Your task to perform on an android device: Open Reddit.com Image 0: 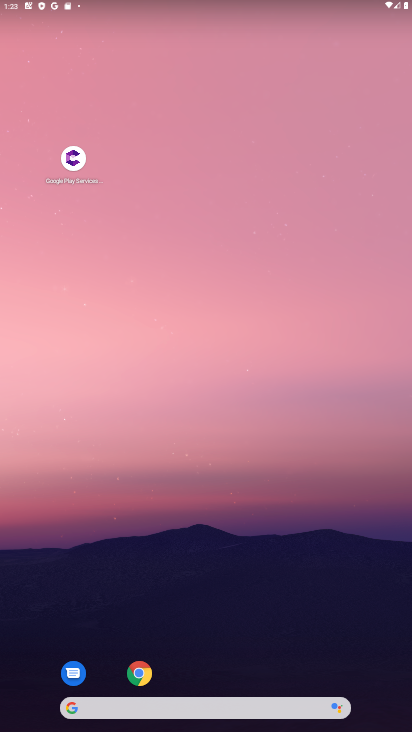
Step 0: drag from (265, 652) to (174, 296)
Your task to perform on an android device: Open Reddit.com Image 1: 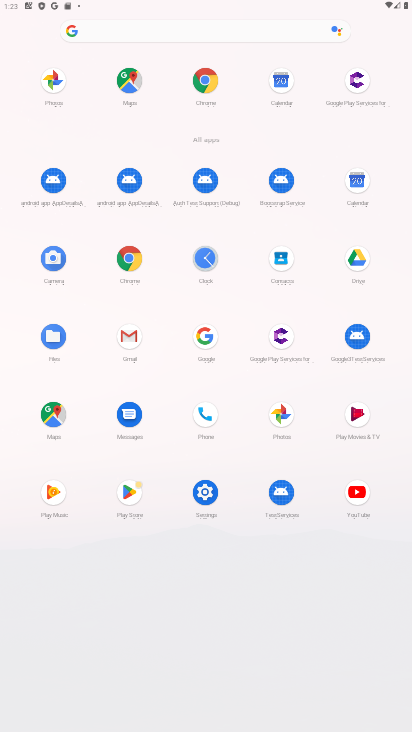
Step 1: click (203, 85)
Your task to perform on an android device: Open Reddit.com Image 2: 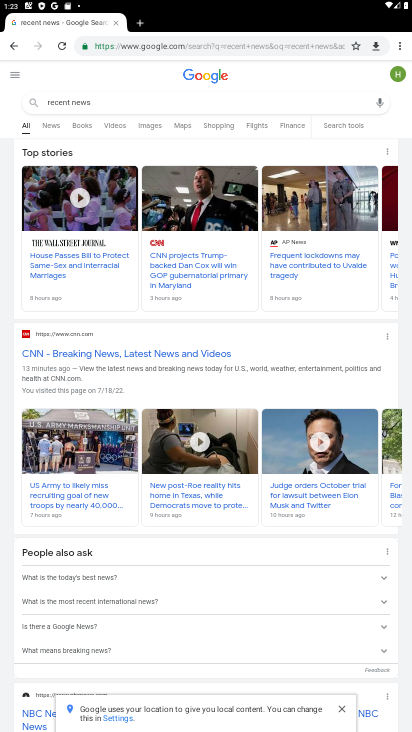
Step 2: click (201, 96)
Your task to perform on an android device: Open Reddit.com Image 3: 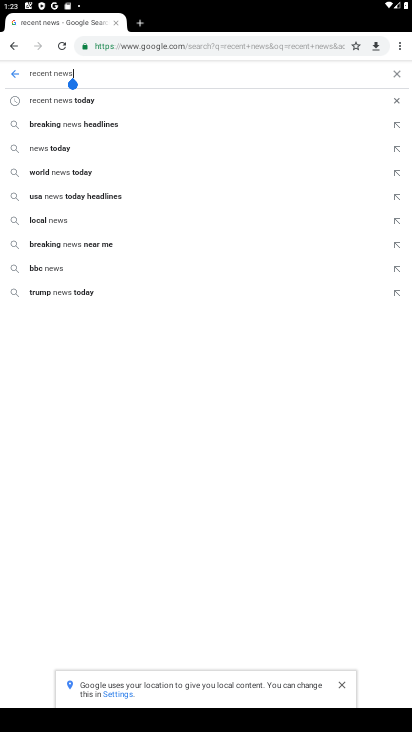
Step 3: click (398, 73)
Your task to perform on an android device: Open Reddit.com Image 4: 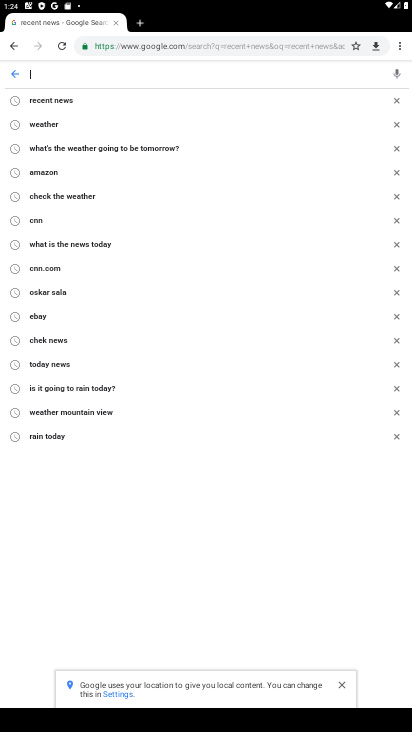
Step 4: type "Reddit.com"
Your task to perform on an android device: Open Reddit.com Image 5: 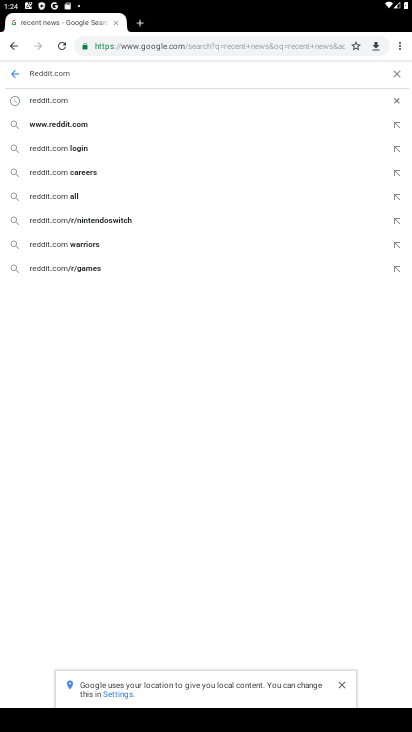
Step 5: click (169, 98)
Your task to perform on an android device: Open Reddit.com Image 6: 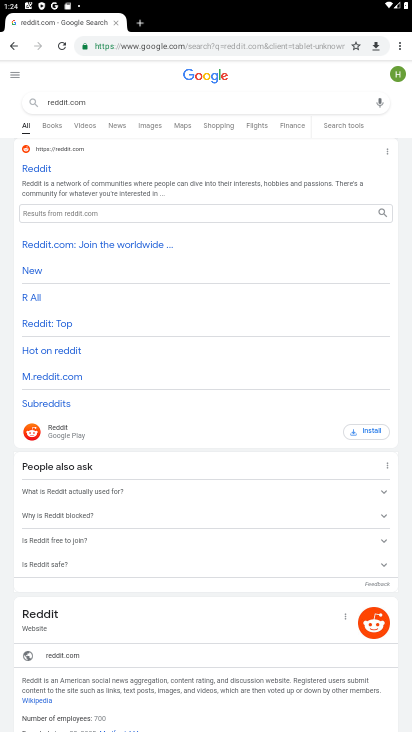
Step 6: click (42, 165)
Your task to perform on an android device: Open Reddit.com Image 7: 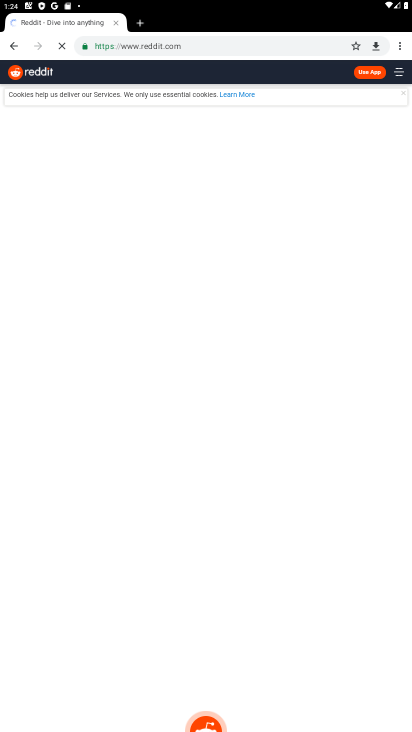
Step 7: task complete